Your task to perform on an android device: turn pop-ups on in chrome Image 0: 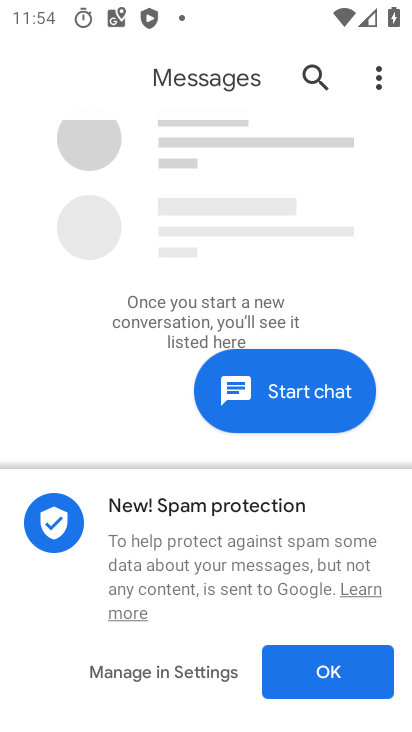
Step 0: press home button
Your task to perform on an android device: turn pop-ups on in chrome Image 1: 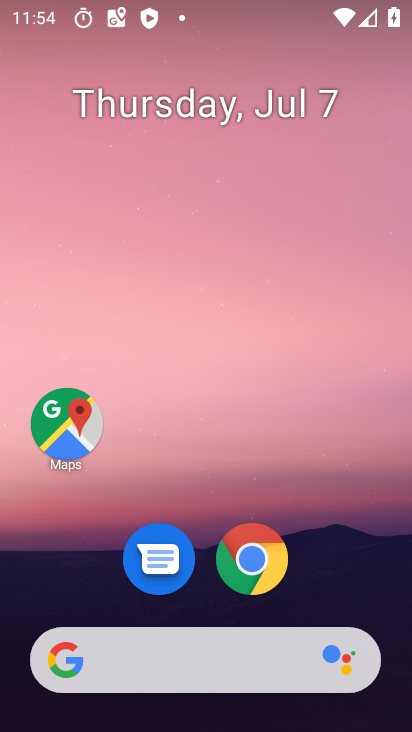
Step 1: drag from (368, 574) to (367, 143)
Your task to perform on an android device: turn pop-ups on in chrome Image 2: 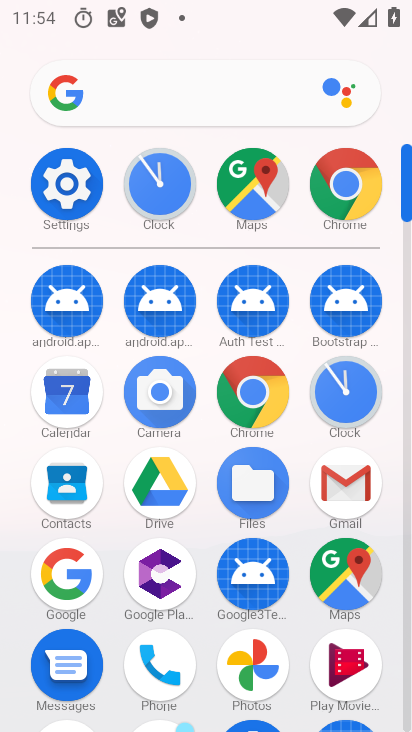
Step 2: click (263, 399)
Your task to perform on an android device: turn pop-ups on in chrome Image 3: 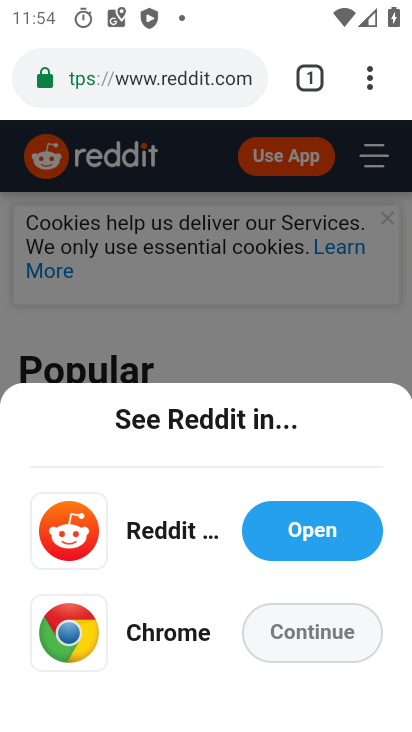
Step 3: click (370, 95)
Your task to perform on an android device: turn pop-ups on in chrome Image 4: 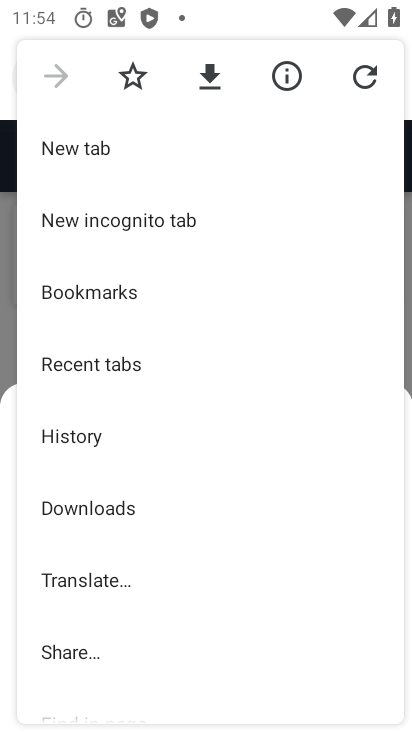
Step 4: drag from (326, 436) to (336, 302)
Your task to perform on an android device: turn pop-ups on in chrome Image 5: 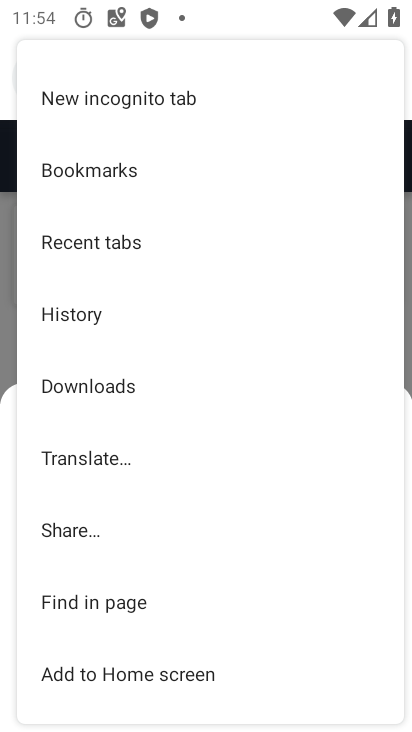
Step 5: drag from (324, 477) to (321, 344)
Your task to perform on an android device: turn pop-ups on in chrome Image 6: 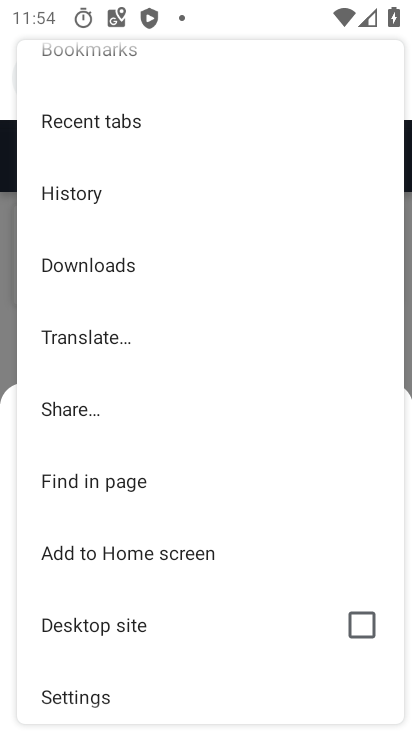
Step 6: drag from (285, 502) to (298, 399)
Your task to perform on an android device: turn pop-ups on in chrome Image 7: 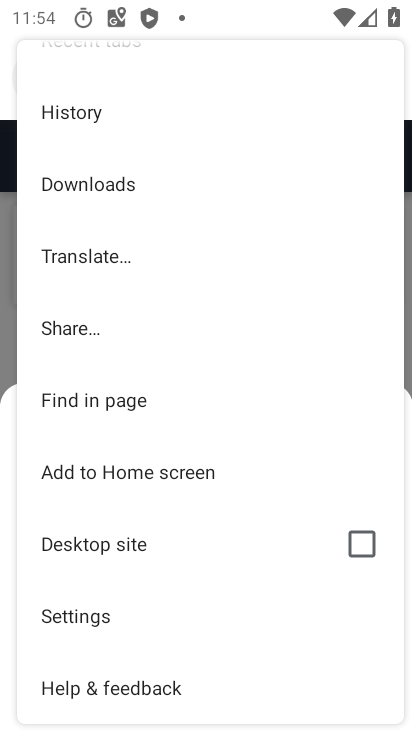
Step 7: click (185, 632)
Your task to perform on an android device: turn pop-ups on in chrome Image 8: 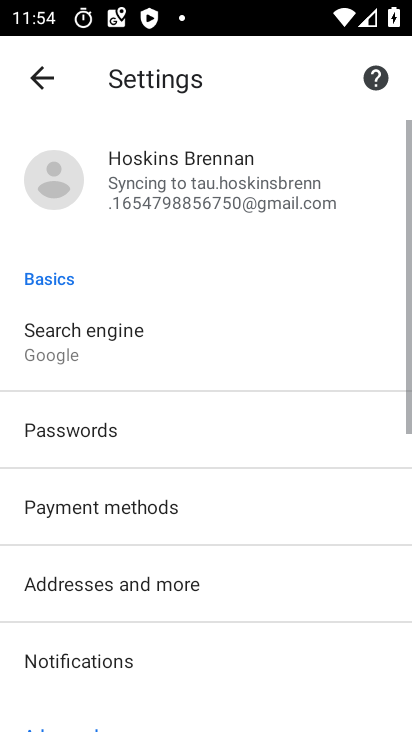
Step 8: drag from (285, 561) to (300, 432)
Your task to perform on an android device: turn pop-ups on in chrome Image 9: 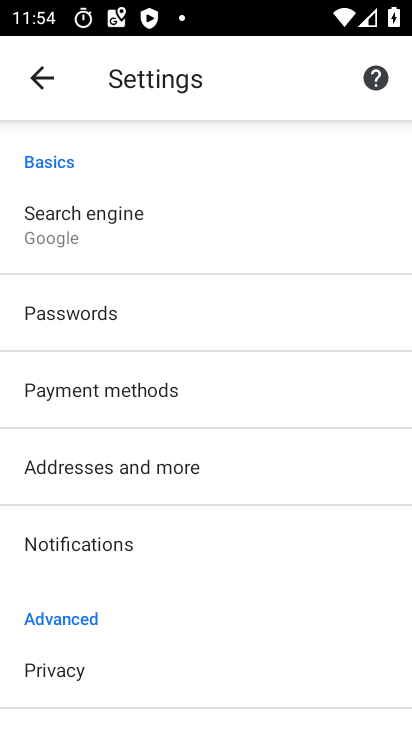
Step 9: drag from (298, 580) to (297, 458)
Your task to perform on an android device: turn pop-ups on in chrome Image 10: 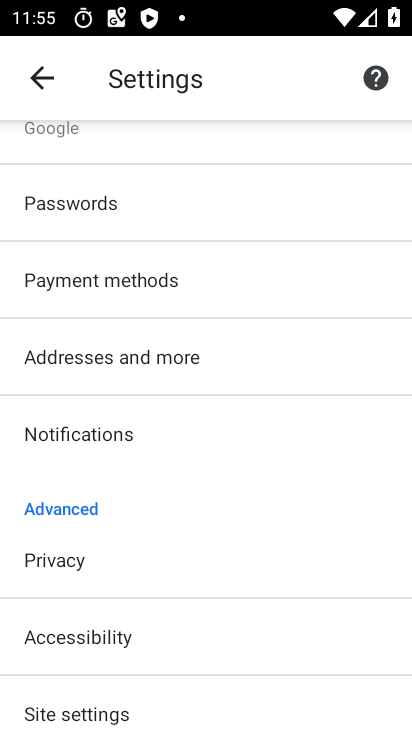
Step 10: drag from (296, 554) to (307, 402)
Your task to perform on an android device: turn pop-ups on in chrome Image 11: 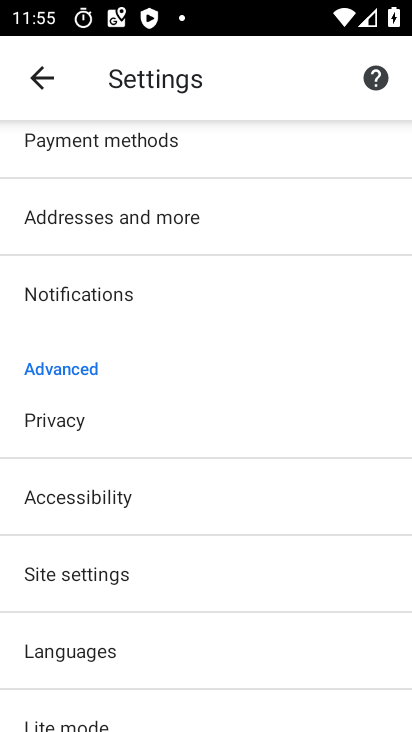
Step 11: drag from (330, 526) to (337, 294)
Your task to perform on an android device: turn pop-ups on in chrome Image 12: 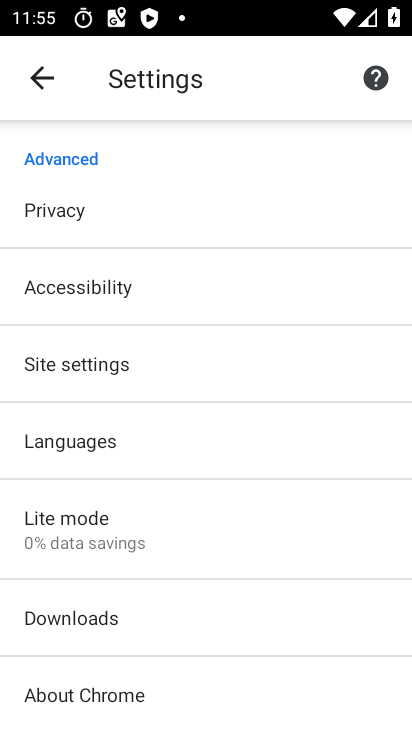
Step 12: click (319, 363)
Your task to perform on an android device: turn pop-ups on in chrome Image 13: 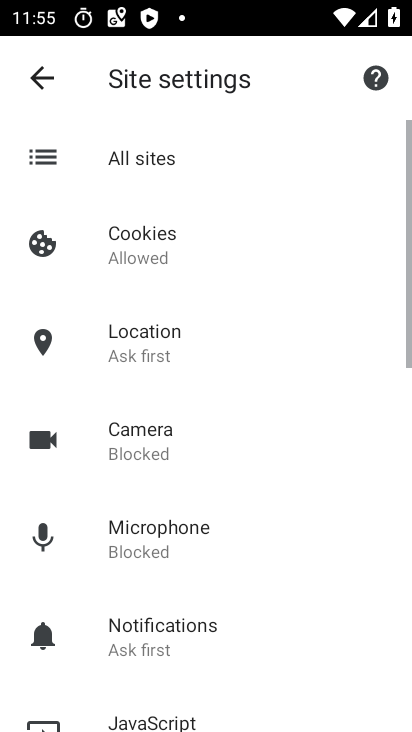
Step 13: drag from (322, 461) to (348, 360)
Your task to perform on an android device: turn pop-ups on in chrome Image 14: 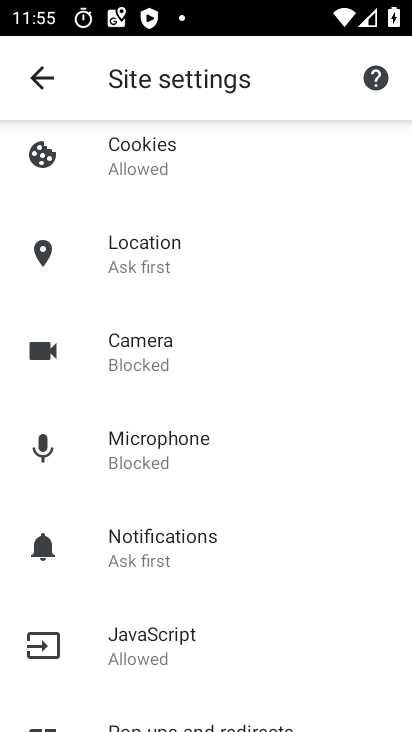
Step 14: drag from (306, 524) to (313, 382)
Your task to perform on an android device: turn pop-ups on in chrome Image 15: 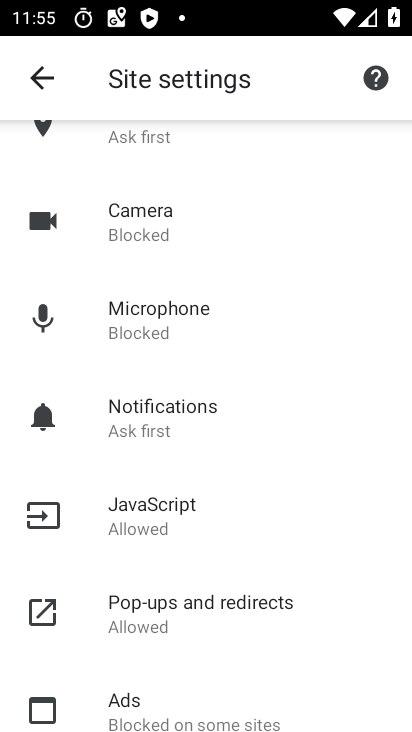
Step 15: drag from (299, 632) to (331, 482)
Your task to perform on an android device: turn pop-ups on in chrome Image 16: 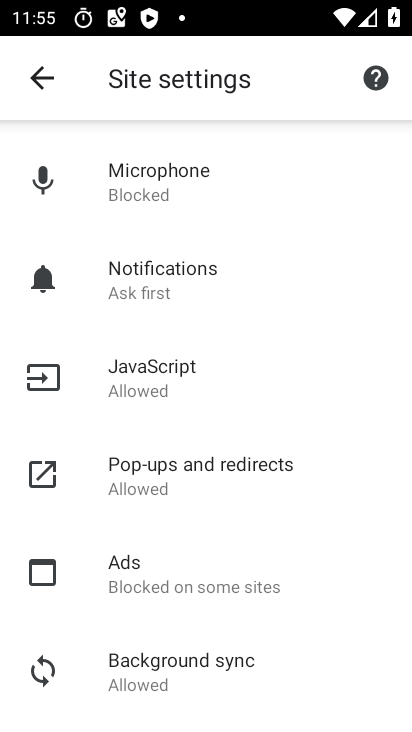
Step 16: click (274, 483)
Your task to perform on an android device: turn pop-ups on in chrome Image 17: 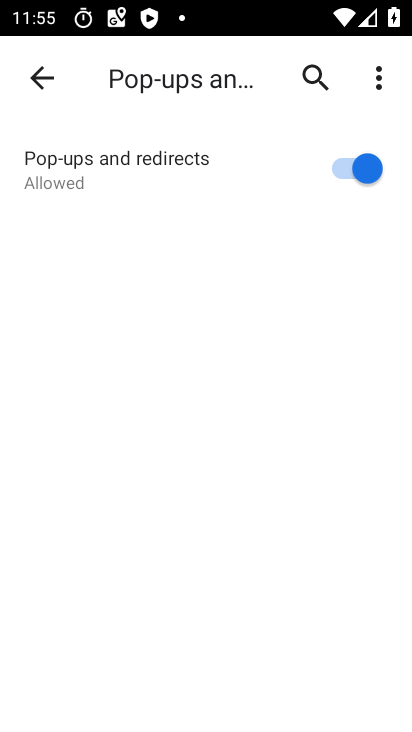
Step 17: task complete